Your task to perform on an android device: find photos in the google photos app Image 0: 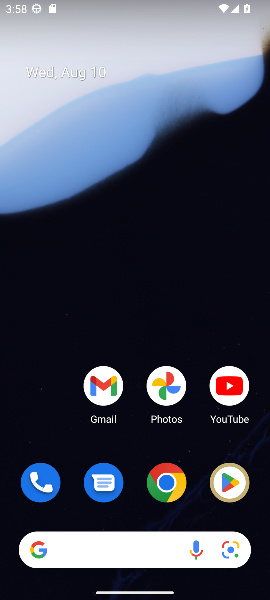
Step 0: click (162, 389)
Your task to perform on an android device: find photos in the google photos app Image 1: 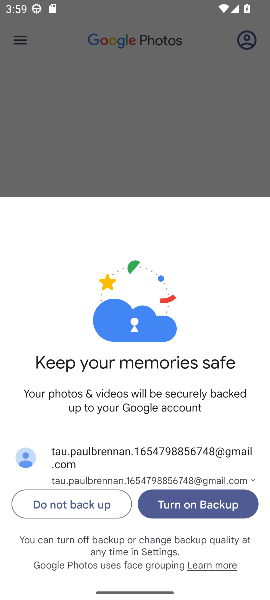
Step 1: click (227, 504)
Your task to perform on an android device: find photos in the google photos app Image 2: 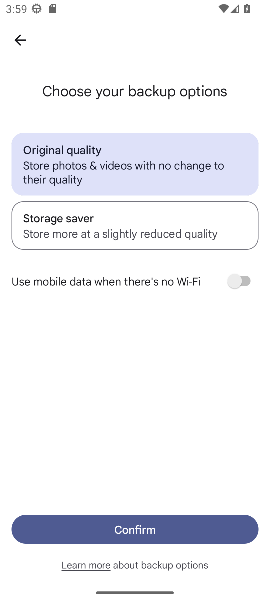
Step 2: click (230, 533)
Your task to perform on an android device: find photos in the google photos app Image 3: 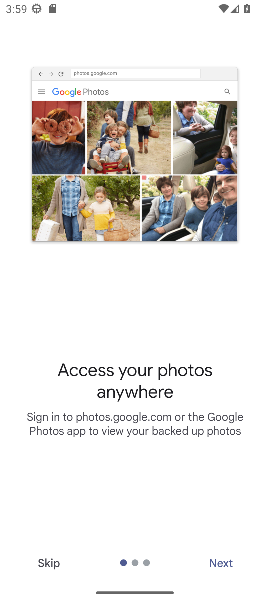
Step 3: click (227, 557)
Your task to perform on an android device: find photos in the google photos app Image 4: 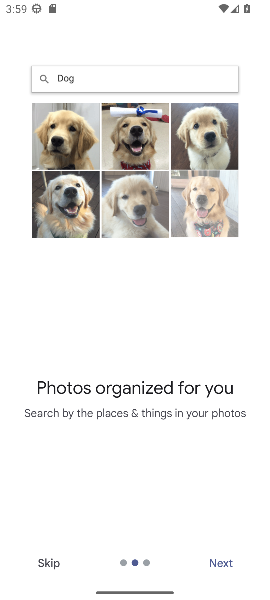
Step 4: click (227, 557)
Your task to perform on an android device: find photos in the google photos app Image 5: 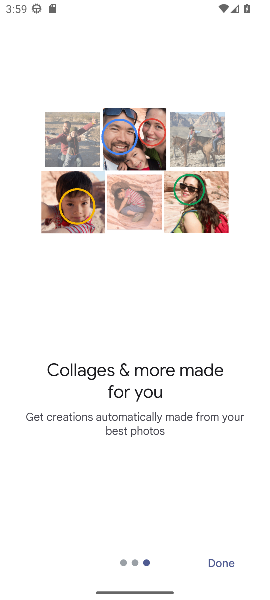
Step 5: click (223, 560)
Your task to perform on an android device: find photos in the google photos app Image 6: 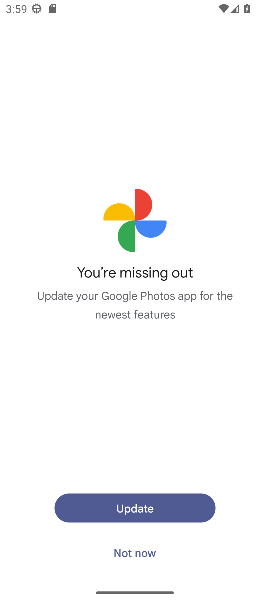
Step 6: click (146, 551)
Your task to perform on an android device: find photos in the google photos app Image 7: 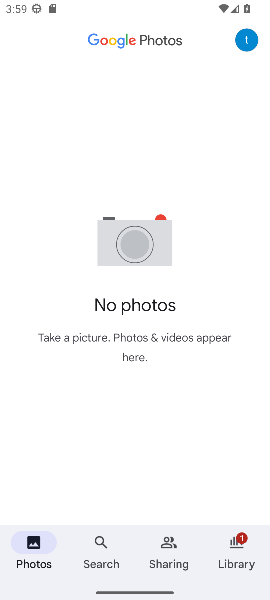
Step 7: task complete